Your task to perform on an android device: Show me popular videos on Youtube Image 0: 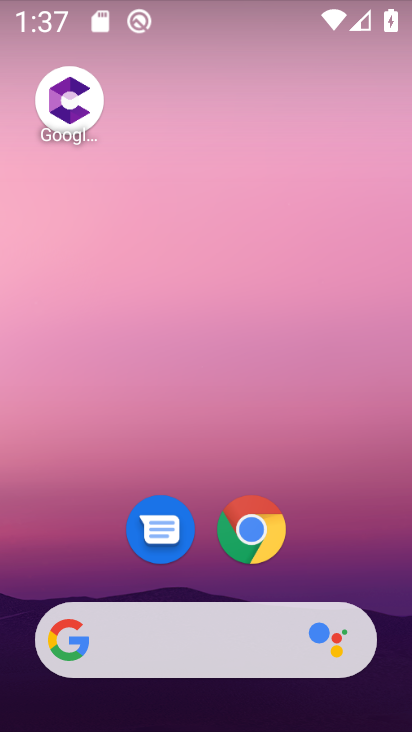
Step 0: drag from (339, 555) to (253, 82)
Your task to perform on an android device: Show me popular videos on Youtube Image 1: 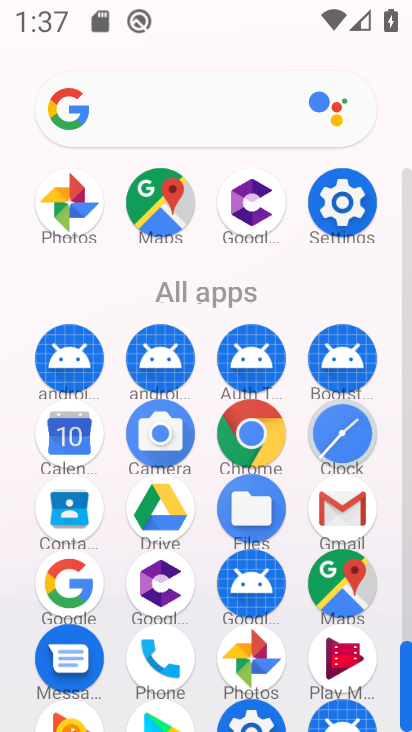
Step 1: drag from (294, 563) to (309, 160)
Your task to perform on an android device: Show me popular videos on Youtube Image 2: 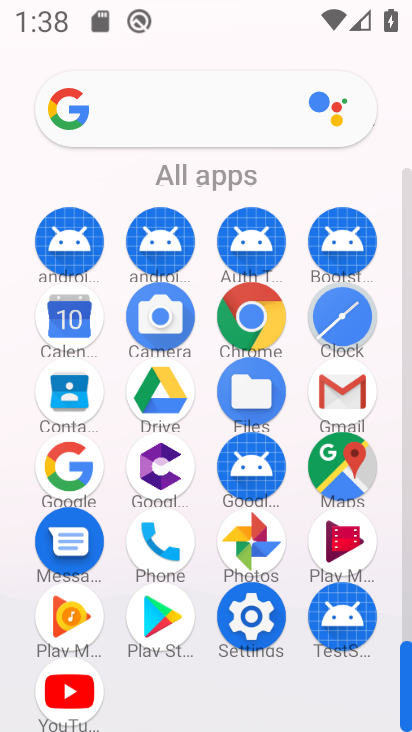
Step 2: click (69, 692)
Your task to perform on an android device: Show me popular videos on Youtube Image 3: 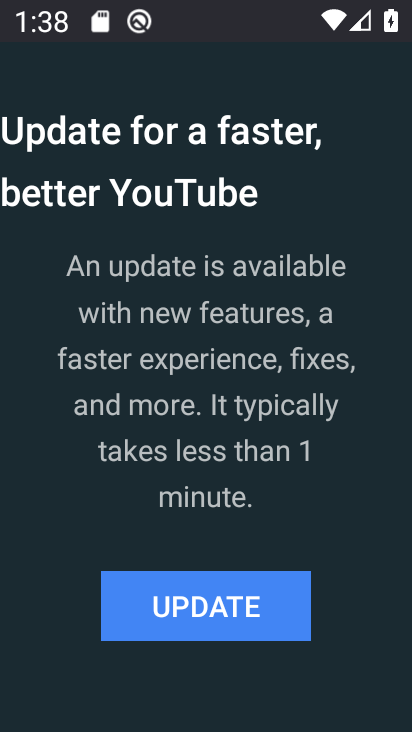
Step 3: click (222, 601)
Your task to perform on an android device: Show me popular videos on Youtube Image 4: 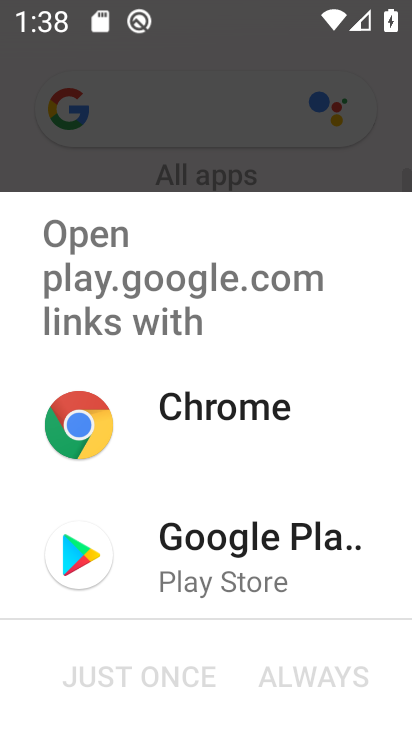
Step 4: click (232, 545)
Your task to perform on an android device: Show me popular videos on Youtube Image 5: 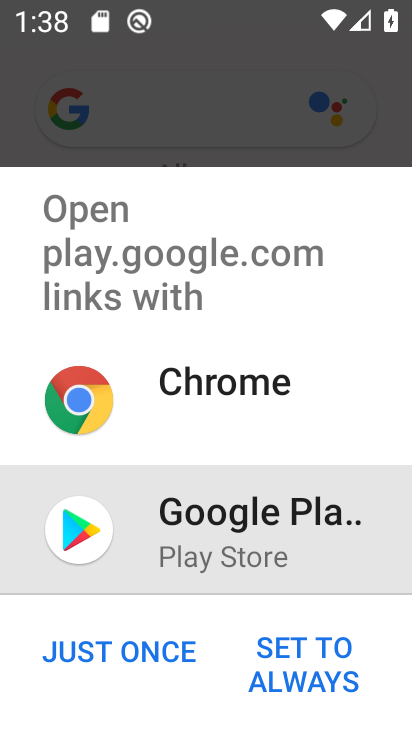
Step 5: click (119, 651)
Your task to perform on an android device: Show me popular videos on Youtube Image 6: 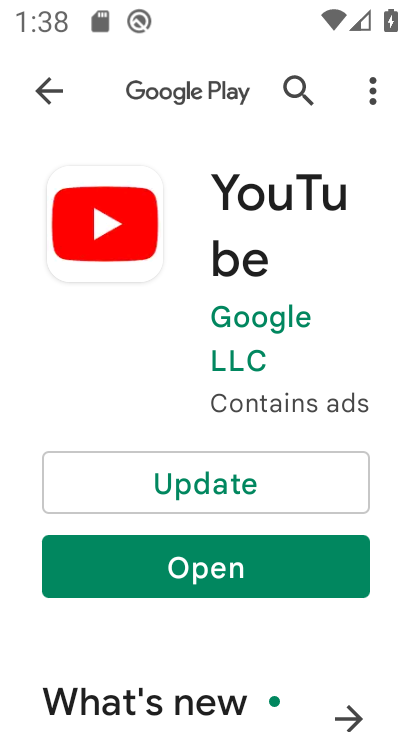
Step 6: click (185, 486)
Your task to perform on an android device: Show me popular videos on Youtube Image 7: 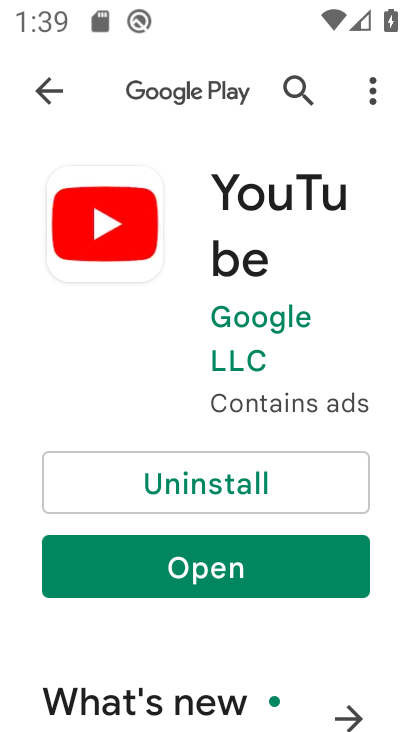
Step 7: click (175, 561)
Your task to perform on an android device: Show me popular videos on Youtube Image 8: 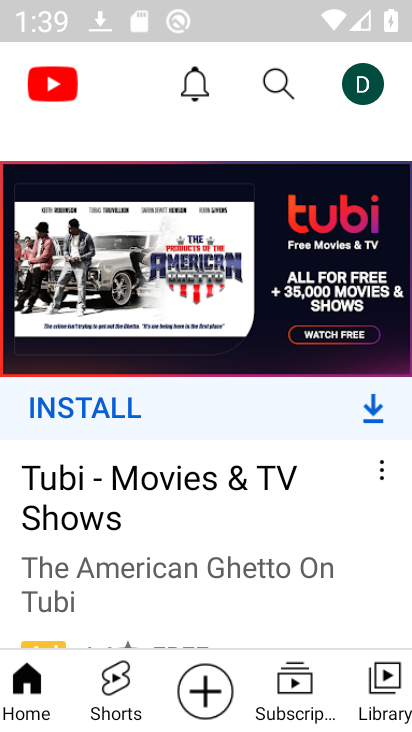
Step 8: click (277, 86)
Your task to perform on an android device: Show me popular videos on Youtube Image 9: 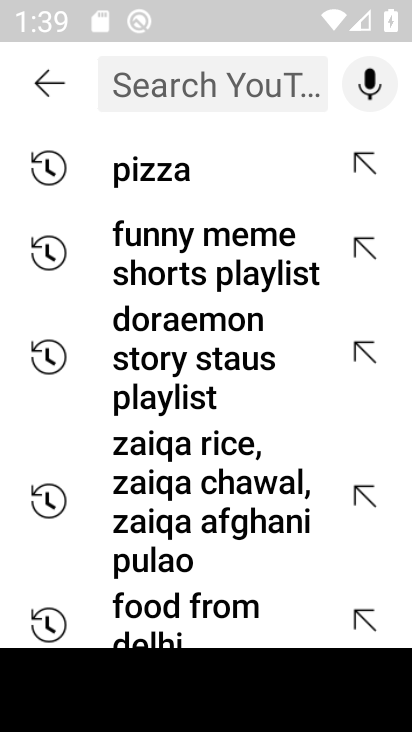
Step 9: click (253, 88)
Your task to perform on an android device: Show me popular videos on Youtube Image 10: 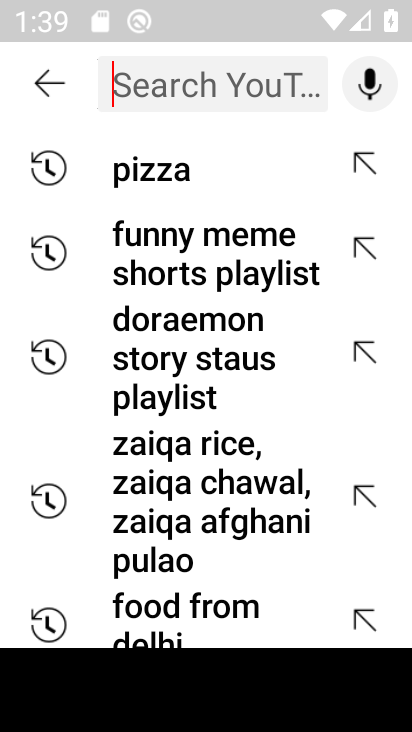
Step 10: type "popular videos"
Your task to perform on an android device: Show me popular videos on Youtube Image 11: 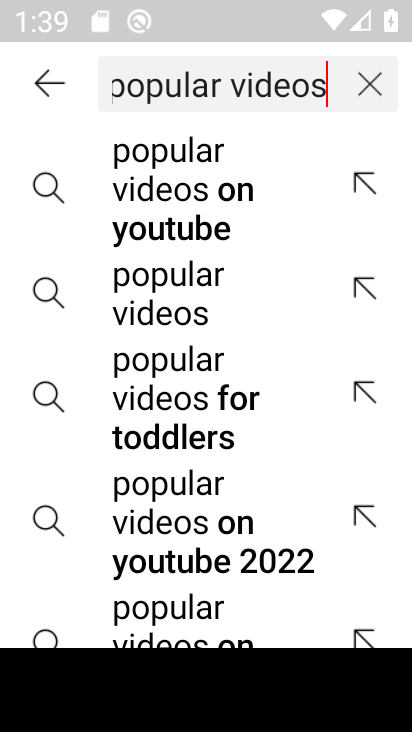
Step 11: click (166, 190)
Your task to perform on an android device: Show me popular videos on Youtube Image 12: 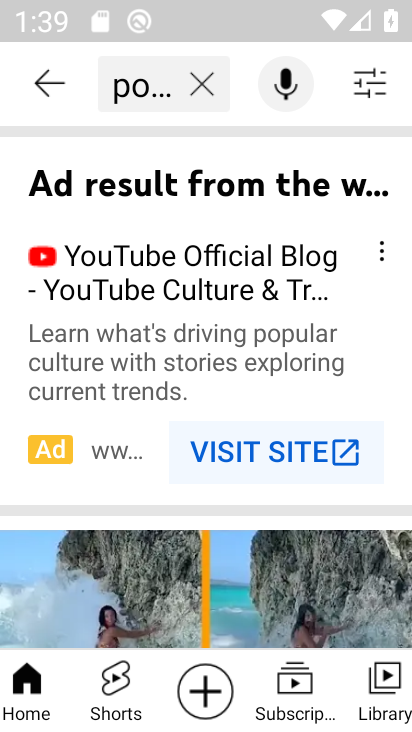
Step 12: task complete